Your task to perform on an android device: turn off priority inbox in the gmail app Image 0: 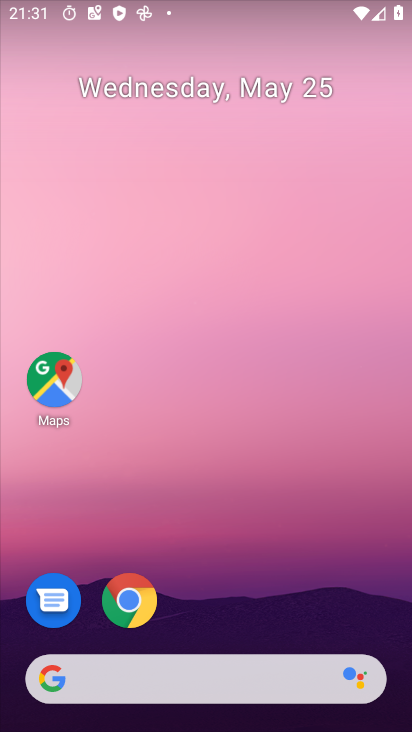
Step 0: drag from (278, 607) to (251, 137)
Your task to perform on an android device: turn off priority inbox in the gmail app Image 1: 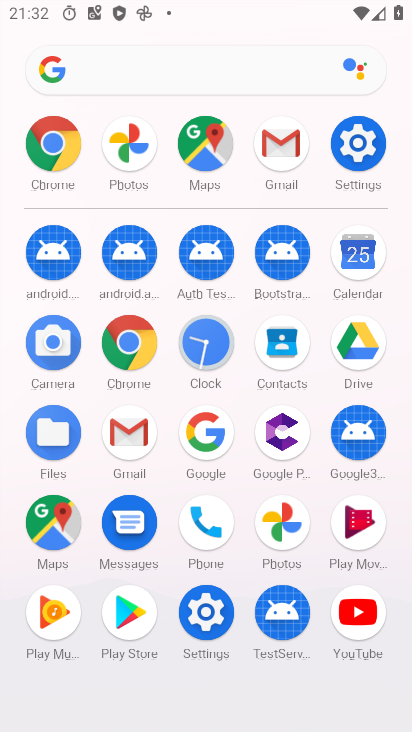
Step 1: click (146, 436)
Your task to perform on an android device: turn off priority inbox in the gmail app Image 2: 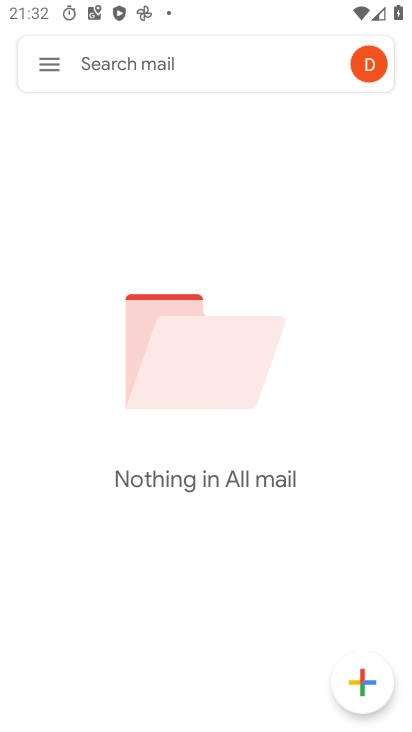
Step 2: click (47, 71)
Your task to perform on an android device: turn off priority inbox in the gmail app Image 3: 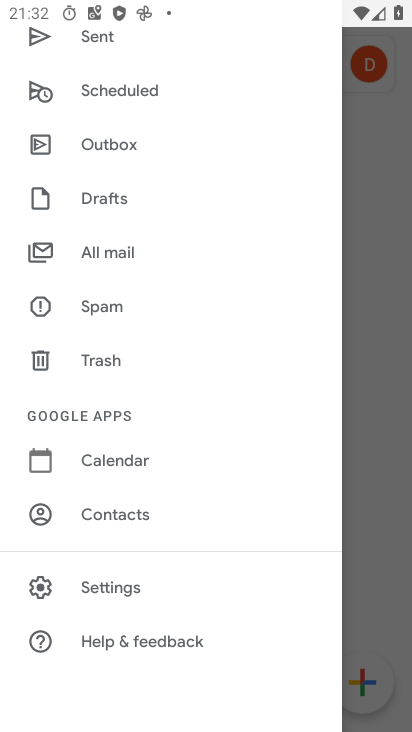
Step 3: click (117, 583)
Your task to perform on an android device: turn off priority inbox in the gmail app Image 4: 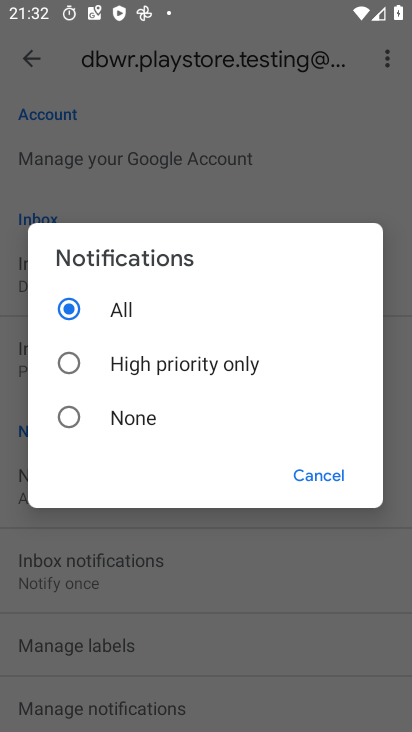
Step 4: click (126, 406)
Your task to perform on an android device: turn off priority inbox in the gmail app Image 5: 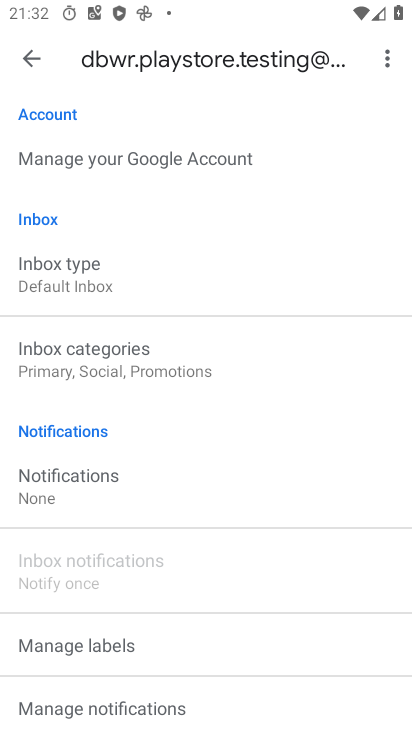
Step 5: task complete